Your task to perform on an android device: install app "Chime – Mobile Banking" Image 0: 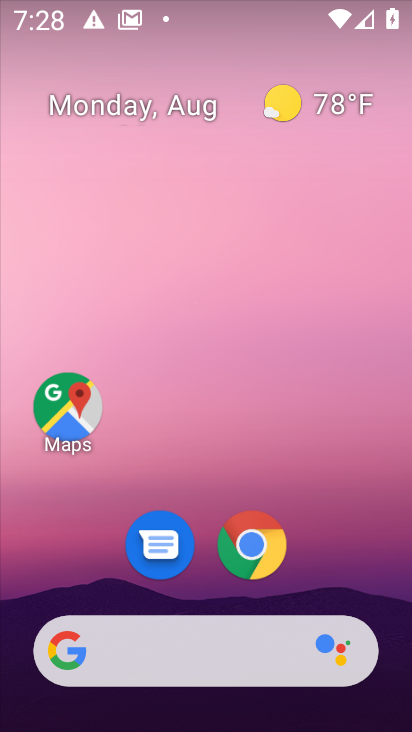
Step 0: drag from (364, 590) to (399, 140)
Your task to perform on an android device: install app "Chime – Mobile Banking" Image 1: 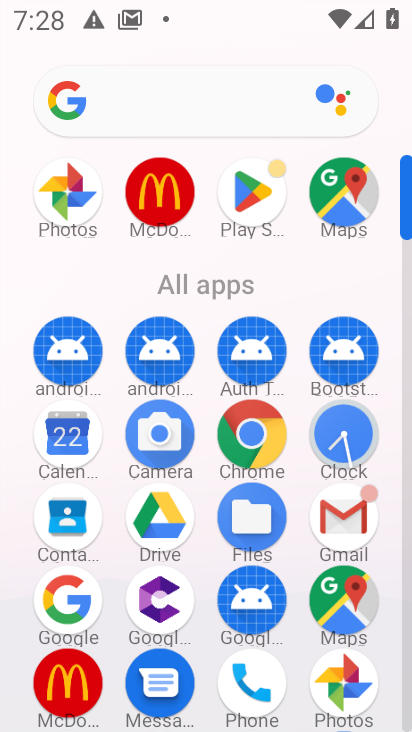
Step 1: click (253, 183)
Your task to perform on an android device: install app "Chime – Mobile Banking" Image 2: 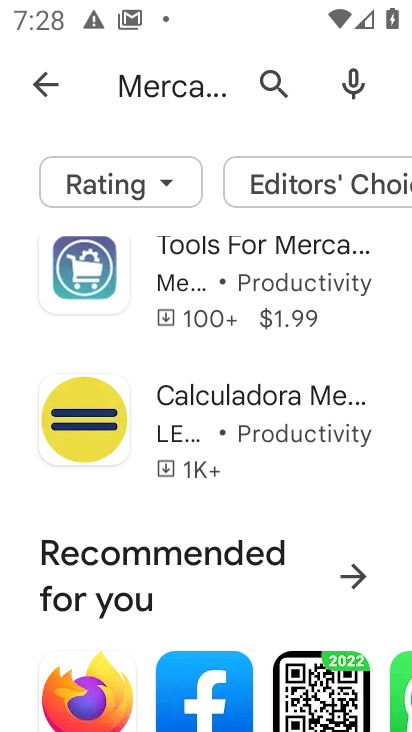
Step 2: press back button
Your task to perform on an android device: install app "Chime – Mobile Banking" Image 3: 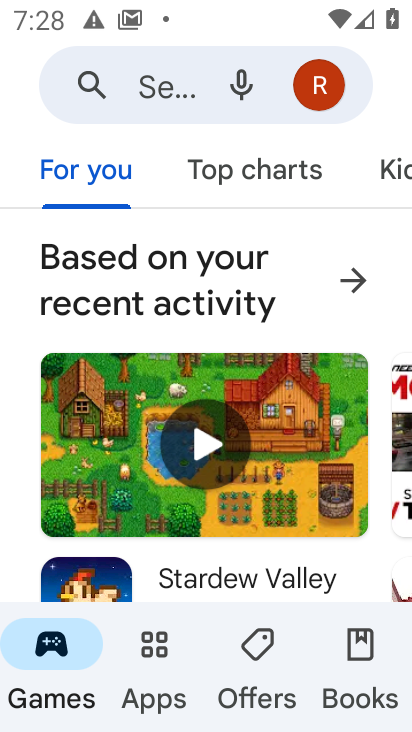
Step 3: click (149, 85)
Your task to perform on an android device: install app "Chime – Mobile Banking" Image 4: 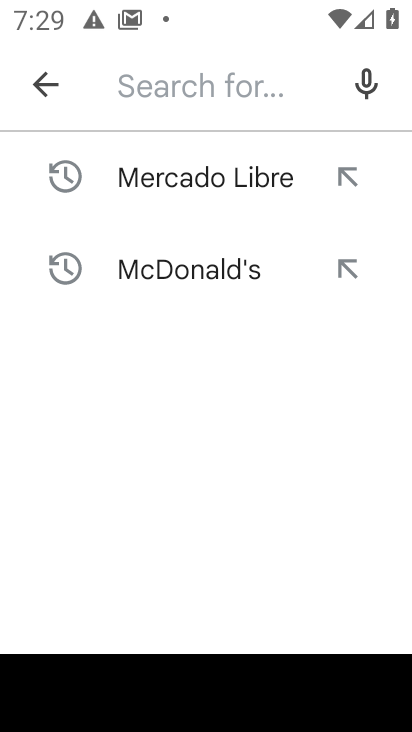
Step 4: type "Chime – Mobile Banking"
Your task to perform on an android device: install app "Chime – Mobile Banking" Image 5: 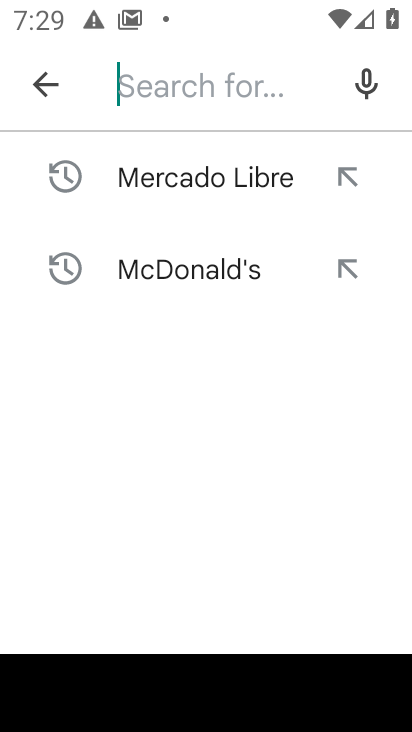
Step 5: press enter
Your task to perform on an android device: install app "Chime – Mobile Banking" Image 6: 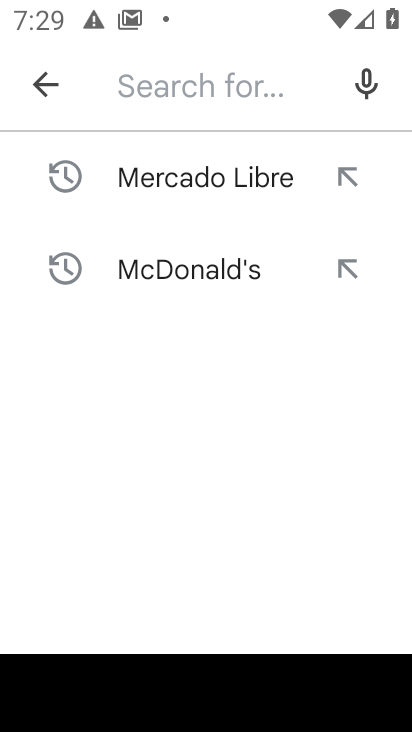
Step 6: type "Chime – Mobile Banking"
Your task to perform on an android device: install app "Chime – Mobile Banking" Image 7: 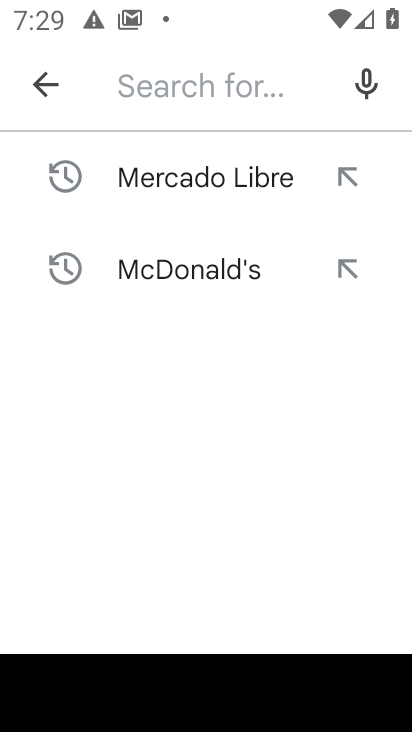
Step 7: task complete